Your task to perform on an android device: Go to Android settings Image 0: 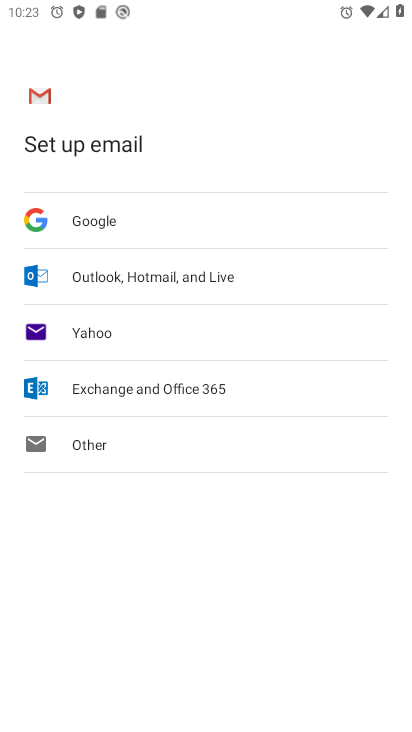
Step 0: press home button
Your task to perform on an android device: Go to Android settings Image 1: 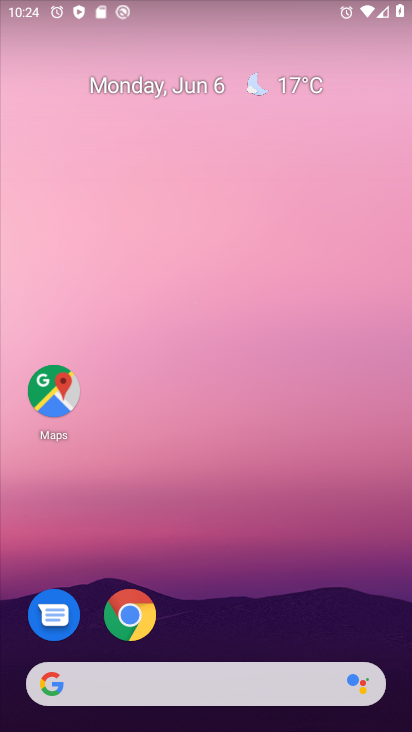
Step 1: drag from (207, 639) to (284, 218)
Your task to perform on an android device: Go to Android settings Image 2: 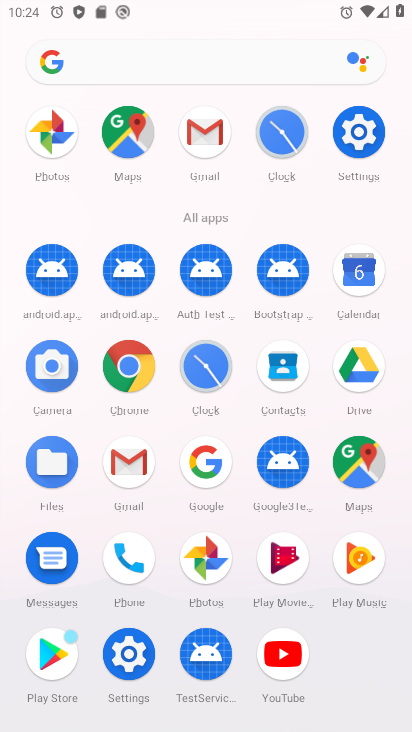
Step 2: click (115, 666)
Your task to perform on an android device: Go to Android settings Image 3: 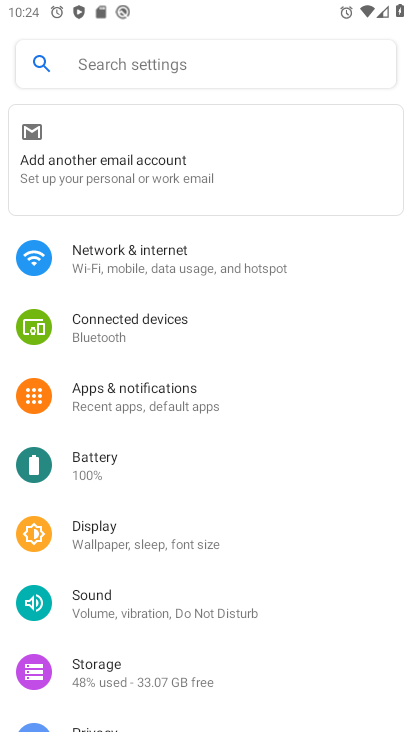
Step 3: task complete